Your task to perform on an android device: What's the weather going to be tomorrow? Image 0: 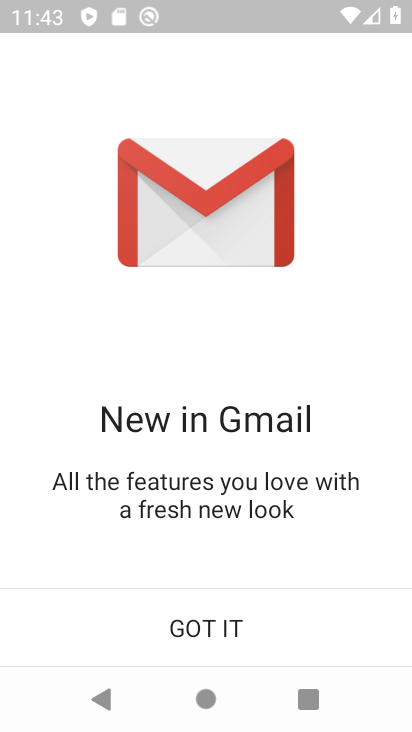
Step 0: press home button
Your task to perform on an android device: What's the weather going to be tomorrow? Image 1: 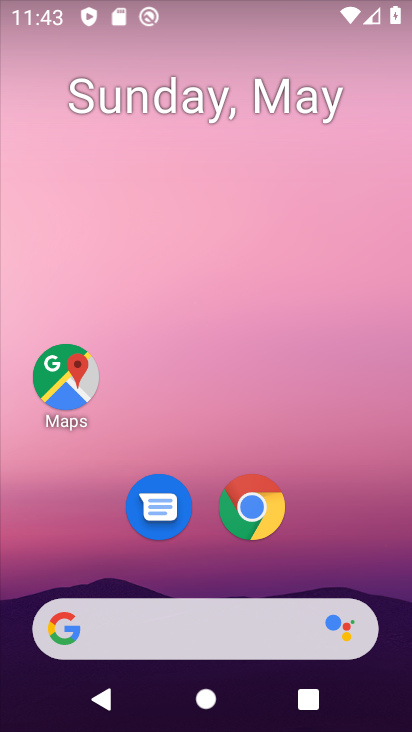
Step 1: drag from (214, 729) to (214, 13)
Your task to perform on an android device: What's the weather going to be tomorrow? Image 2: 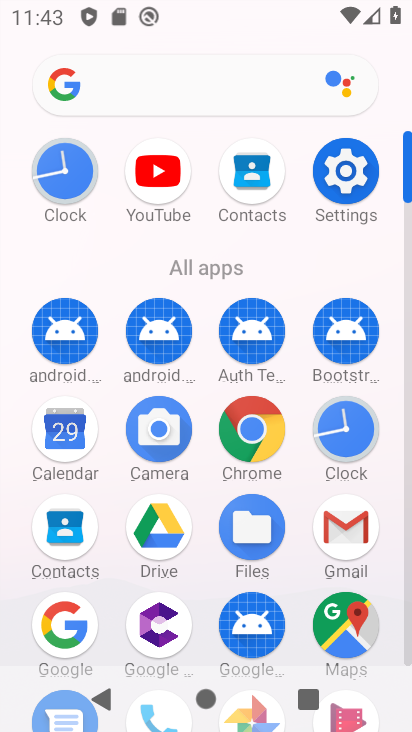
Step 2: click (75, 626)
Your task to perform on an android device: What's the weather going to be tomorrow? Image 3: 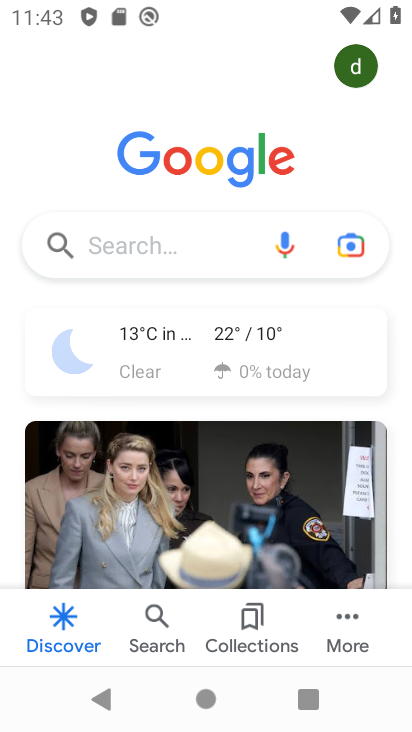
Step 3: click (151, 358)
Your task to perform on an android device: What's the weather going to be tomorrow? Image 4: 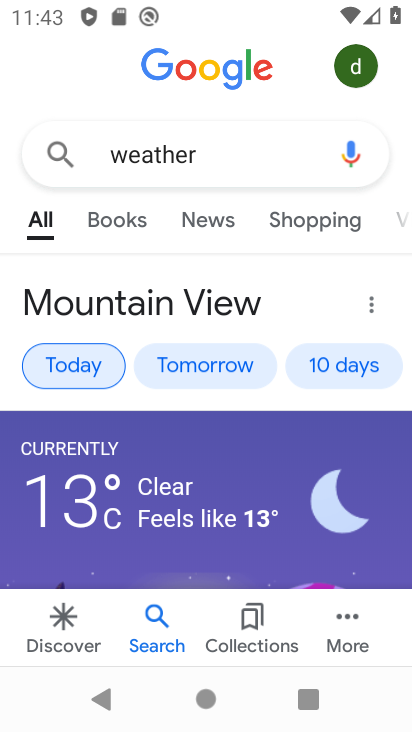
Step 4: click (343, 360)
Your task to perform on an android device: What's the weather going to be tomorrow? Image 5: 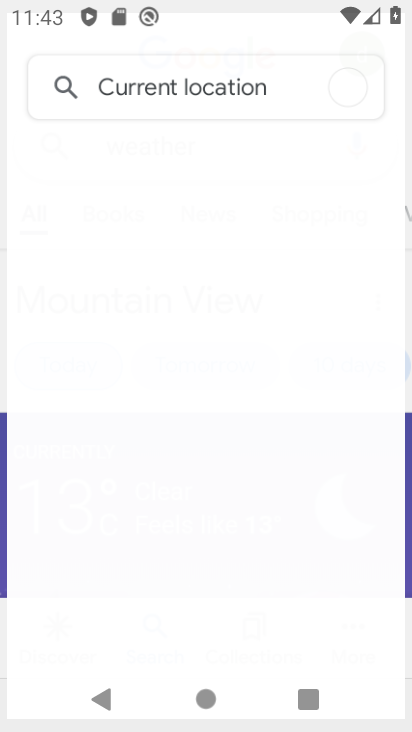
Step 5: click (240, 357)
Your task to perform on an android device: What's the weather going to be tomorrow? Image 6: 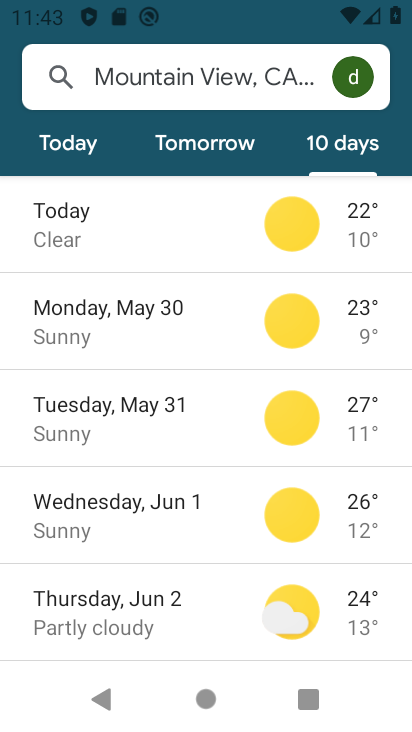
Step 6: click (187, 146)
Your task to perform on an android device: What's the weather going to be tomorrow? Image 7: 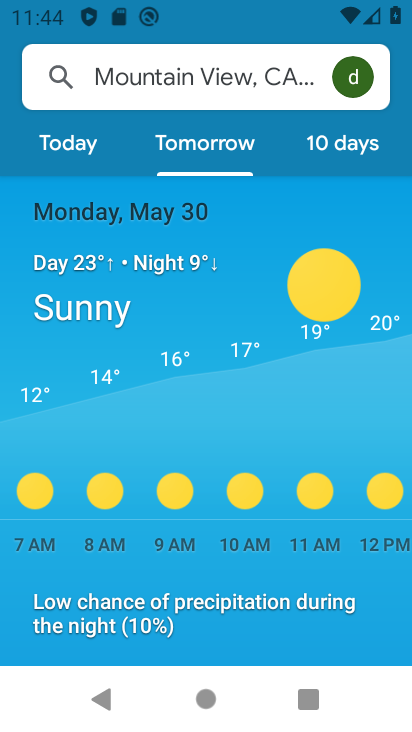
Step 7: task complete